Your task to perform on an android device: open the mobile data screen to see how much data has been used Image 0: 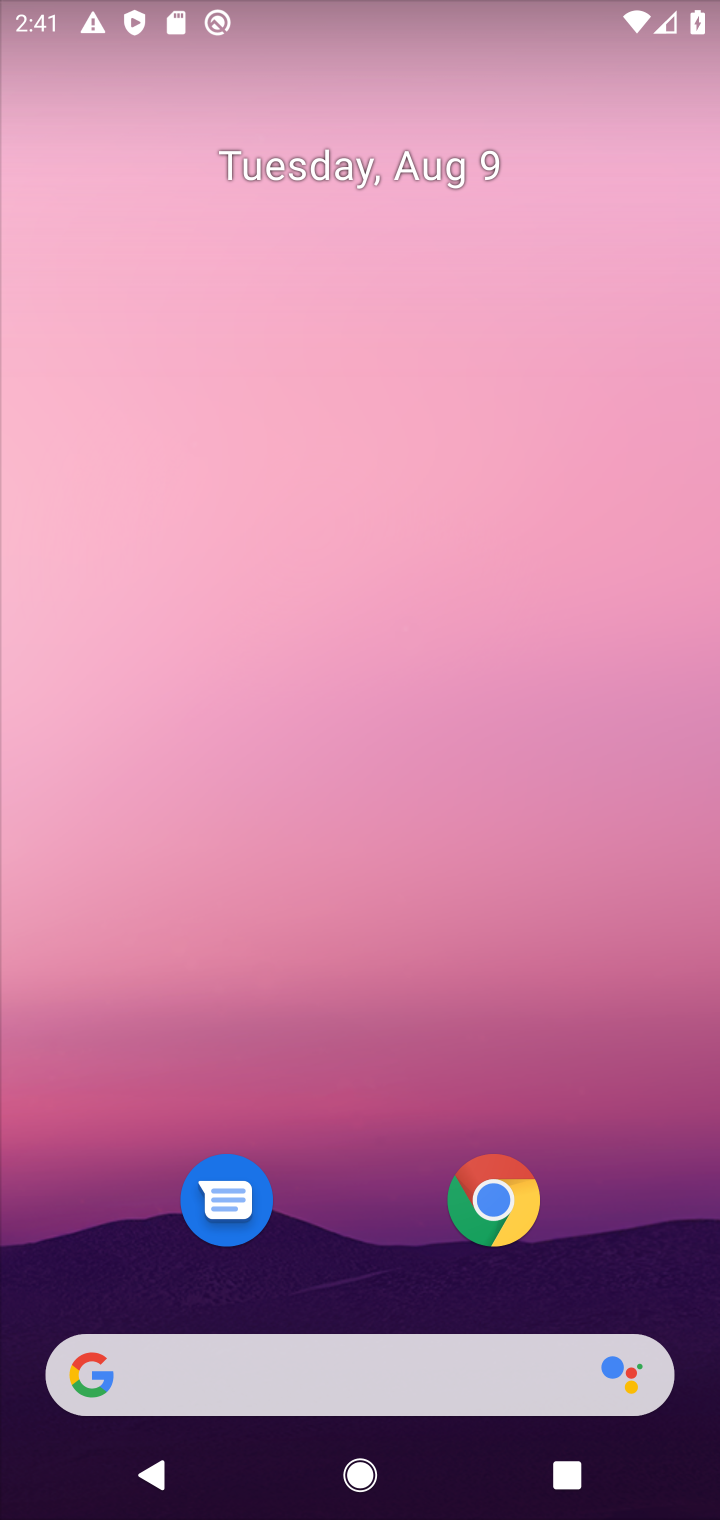
Step 0: drag from (295, 1246) to (150, 341)
Your task to perform on an android device: open the mobile data screen to see how much data has been used Image 1: 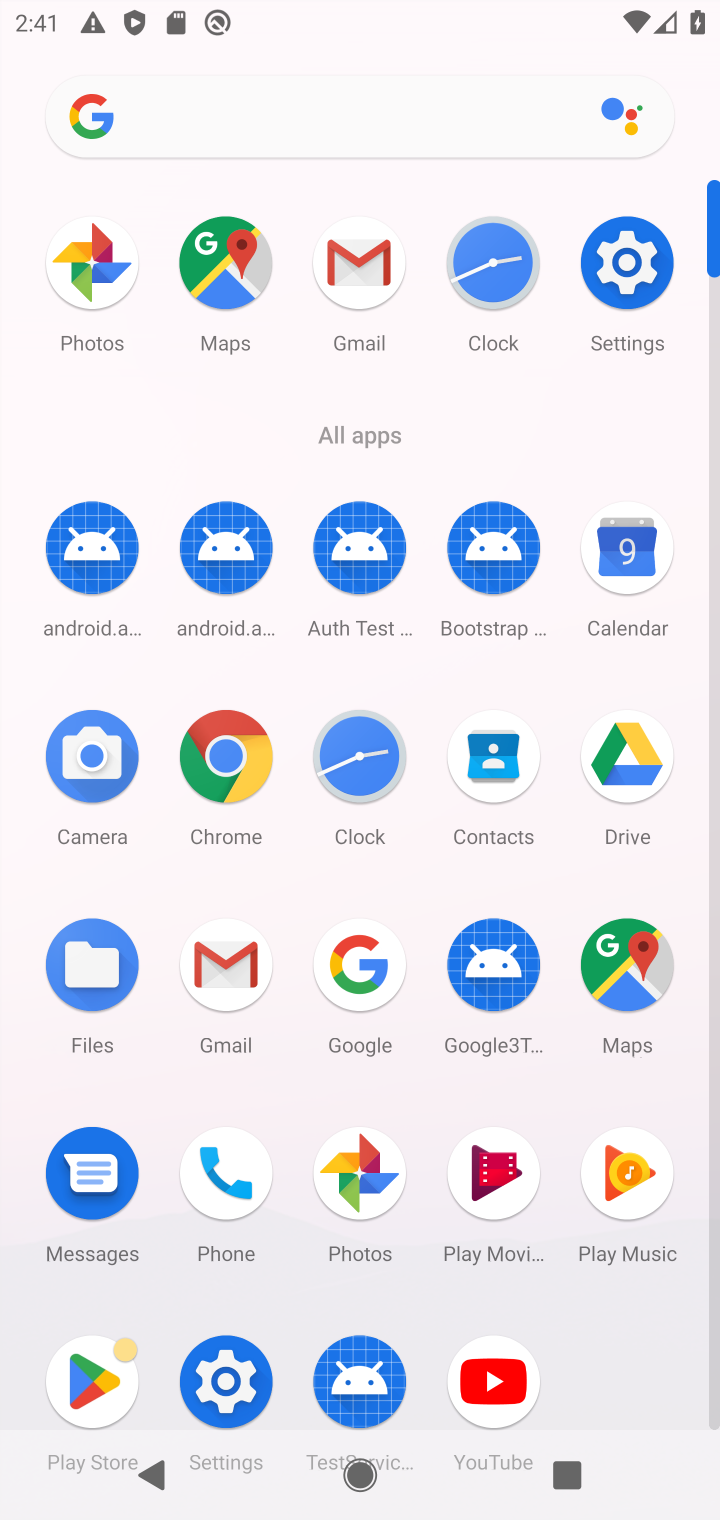
Step 1: click (177, 422)
Your task to perform on an android device: open the mobile data screen to see how much data has been used Image 2: 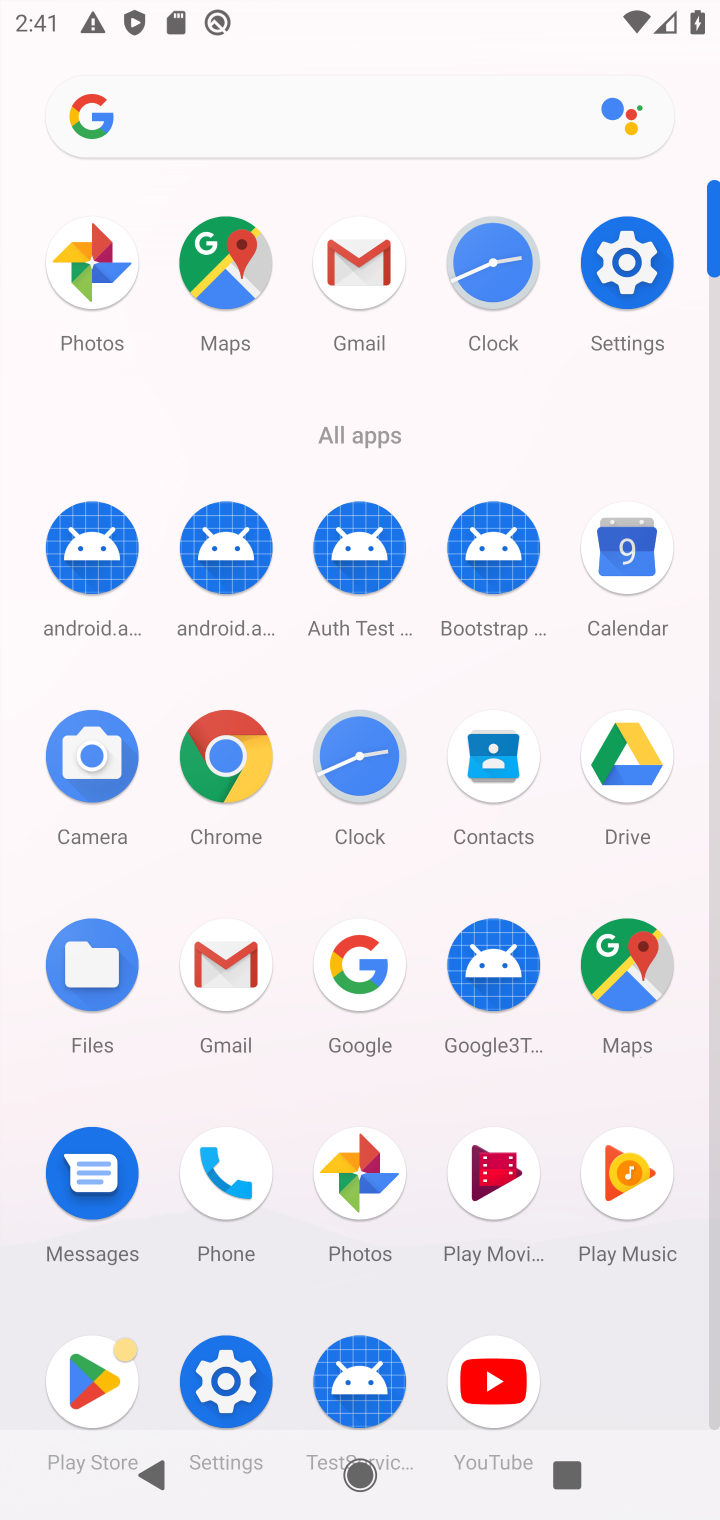
Step 2: click (221, 1374)
Your task to perform on an android device: open the mobile data screen to see how much data has been used Image 3: 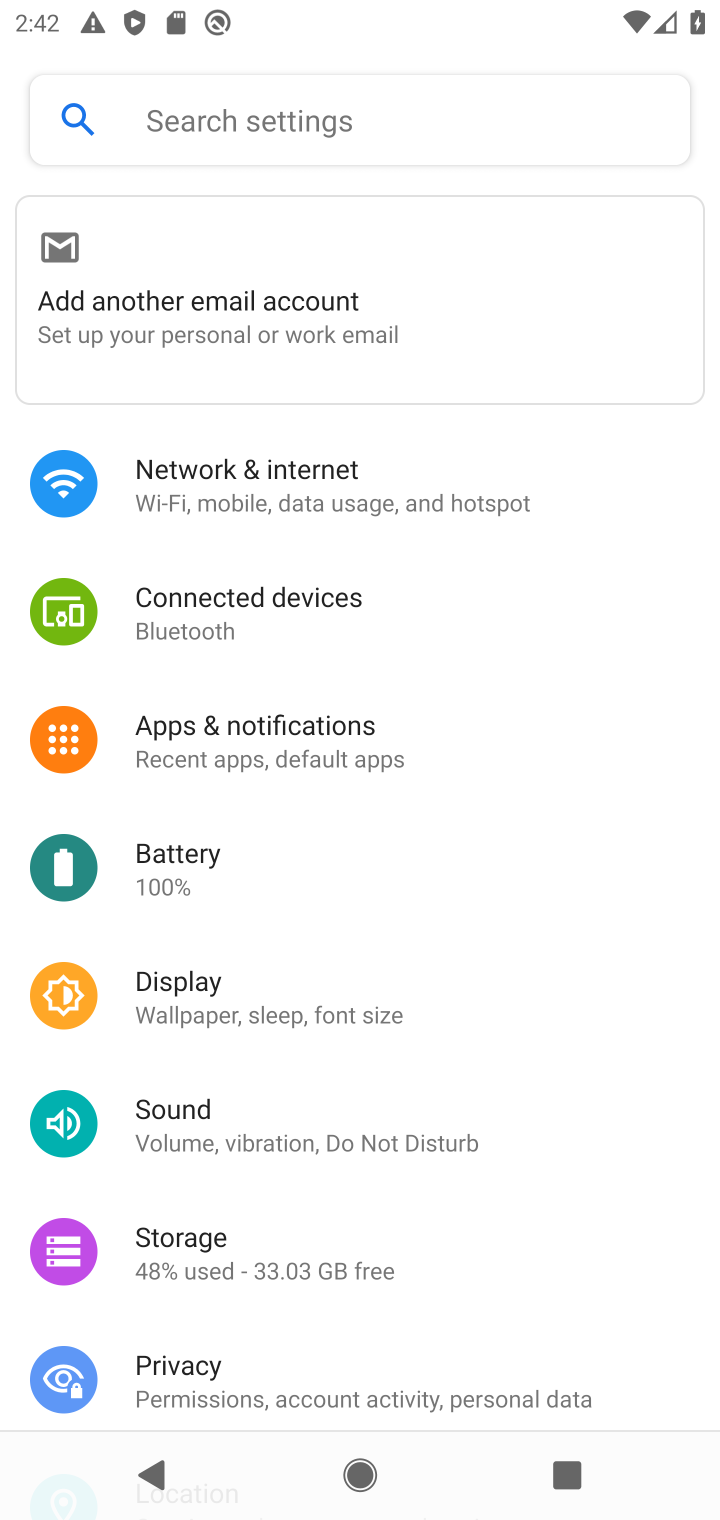
Step 3: click (184, 465)
Your task to perform on an android device: open the mobile data screen to see how much data has been used Image 4: 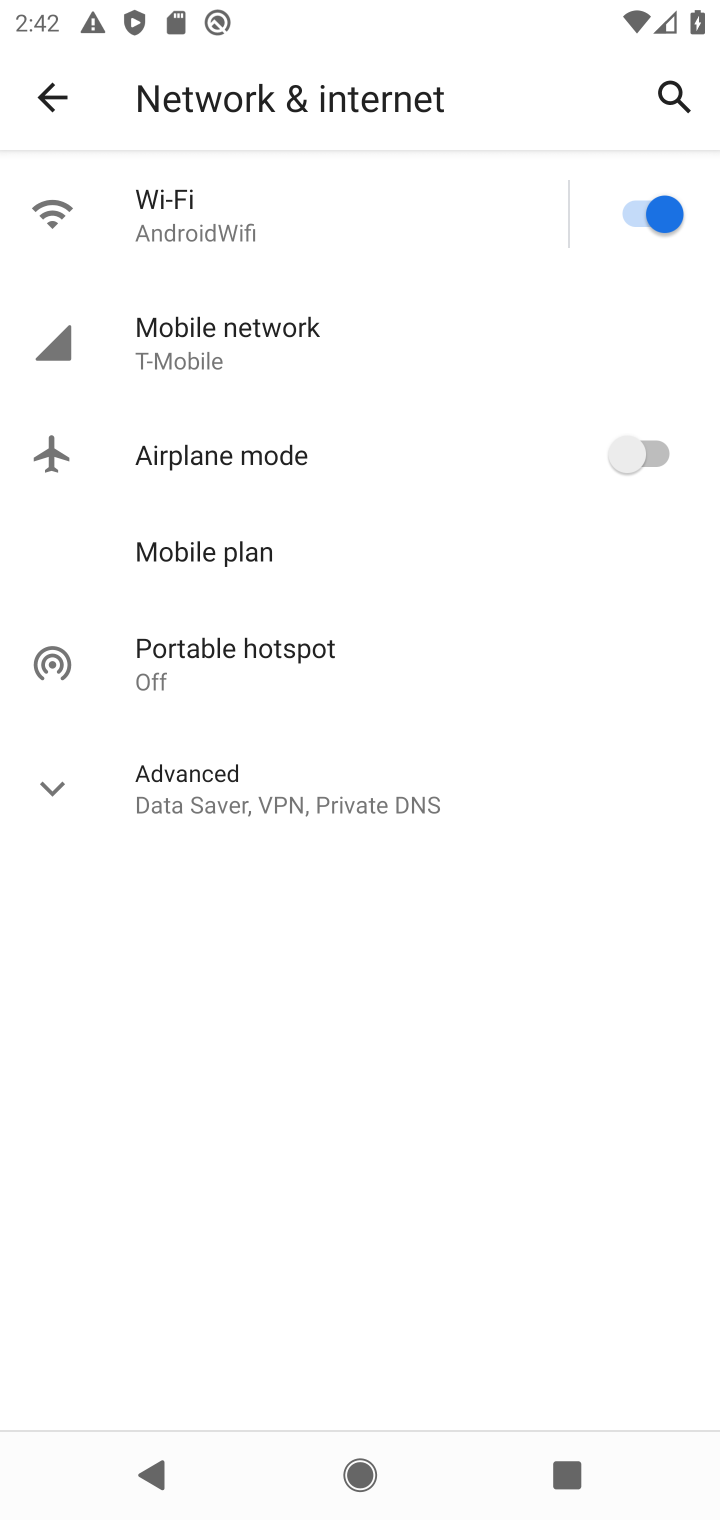
Step 4: click (178, 357)
Your task to perform on an android device: open the mobile data screen to see how much data has been used Image 5: 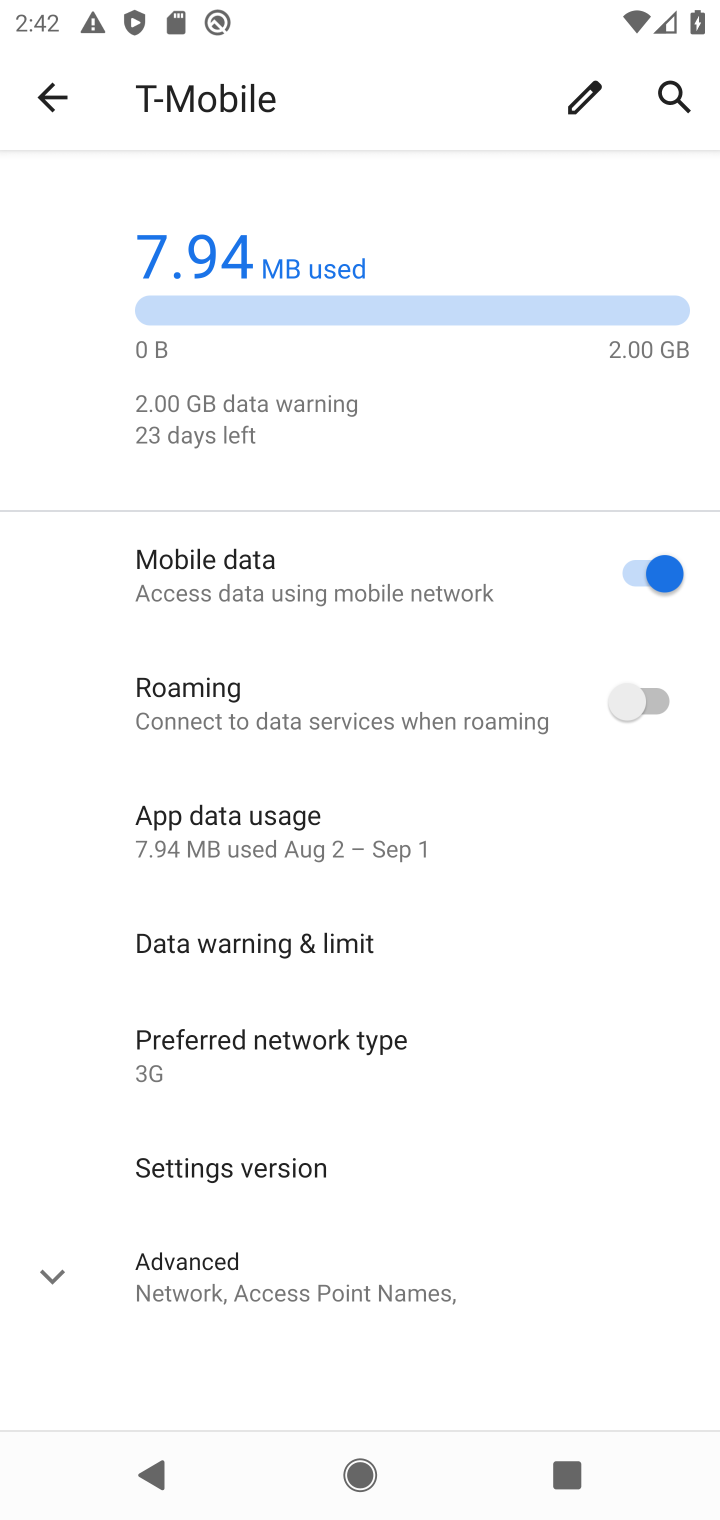
Step 5: task complete